Your task to perform on an android device: Go to CNN.com Image 0: 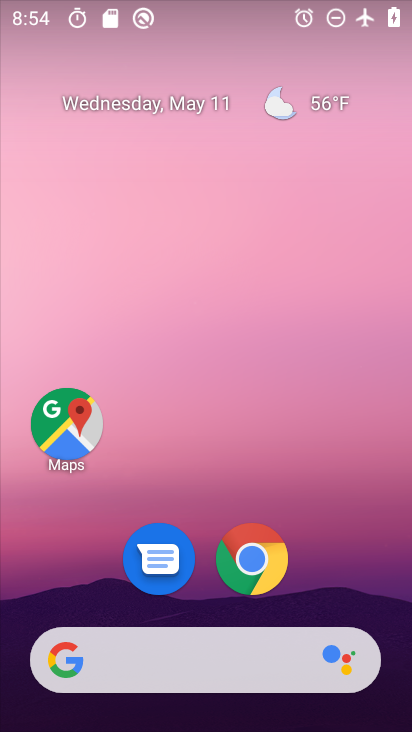
Step 0: click (253, 563)
Your task to perform on an android device: Go to CNN.com Image 1: 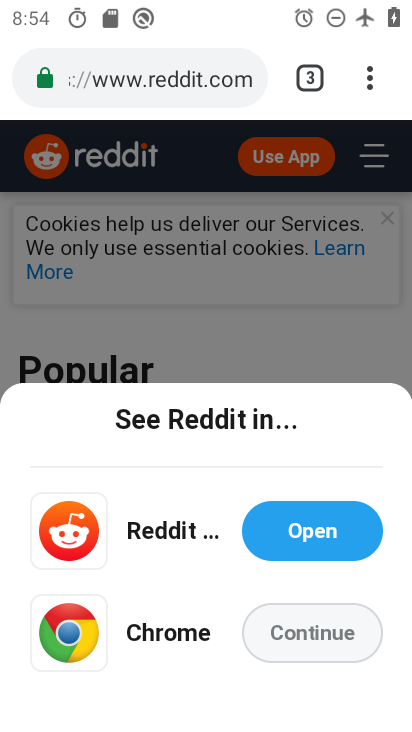
Step 1: click (312, 642)
Your task to perform on an android device: Go to CNN.com Image 2: 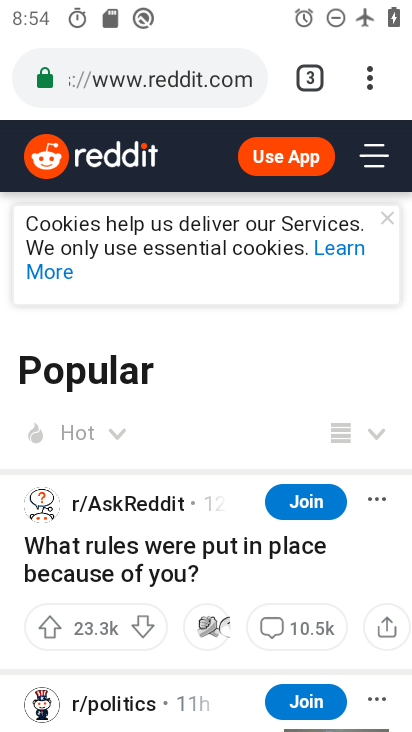
Step 2: click (303, 84)
Your task to perform on an android device: Go to CNN.com Image 3: 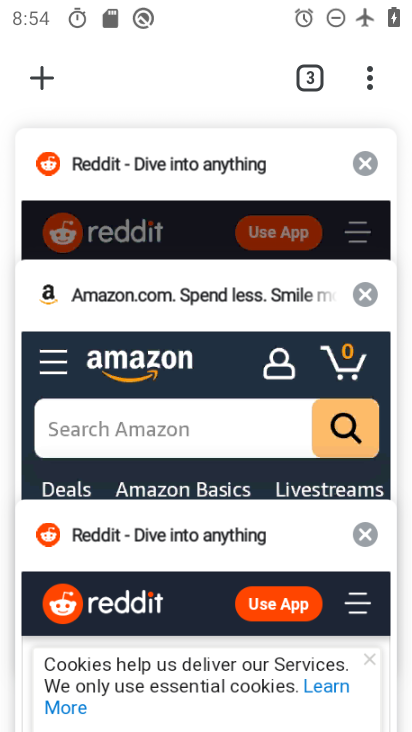
Step 3: click (40, 72)
Your task to perform on an android device: Go to CNN.com Image 4: 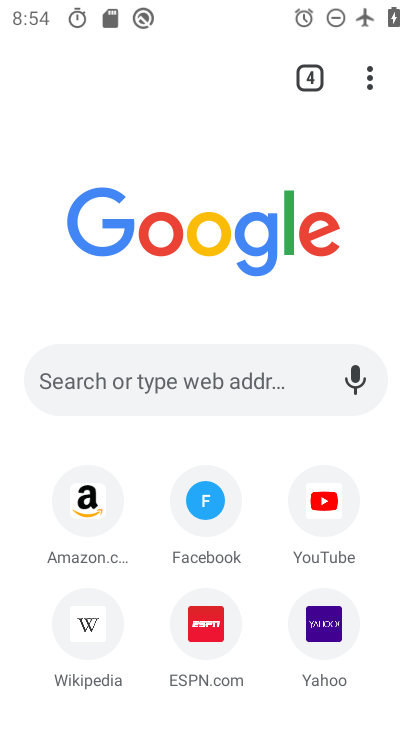
Step 4: click (217, 382)
Your task to perform on an android device: Go to CNN.com Image 5: 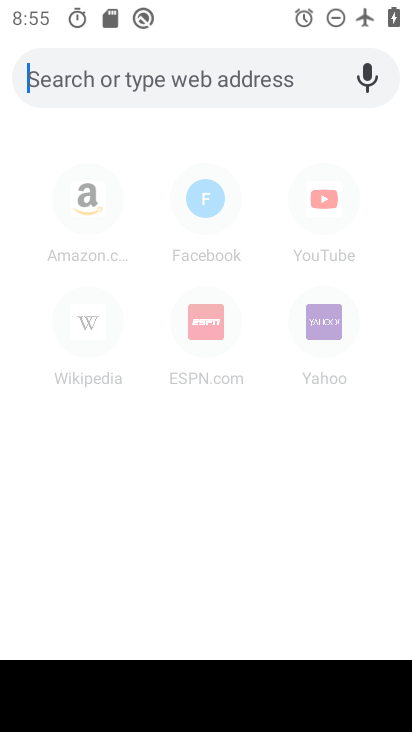
Step 5: type "CNN"
Your task to perform on an android device: Go to CNN.com Image 6: 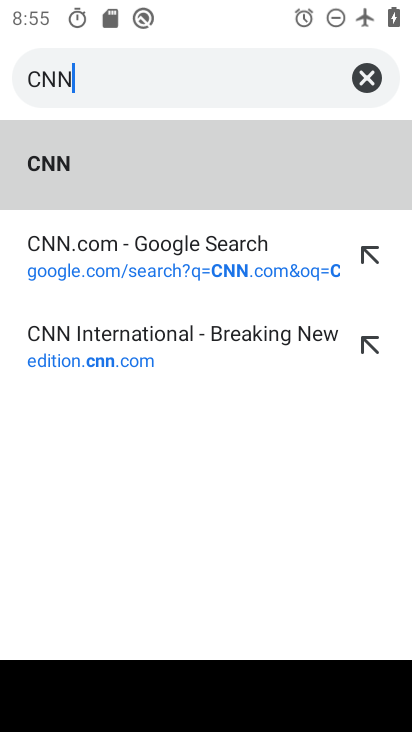
Step 6: click (171, 346)
Your task to perform on an android device: Go to CNN.com Image 7: 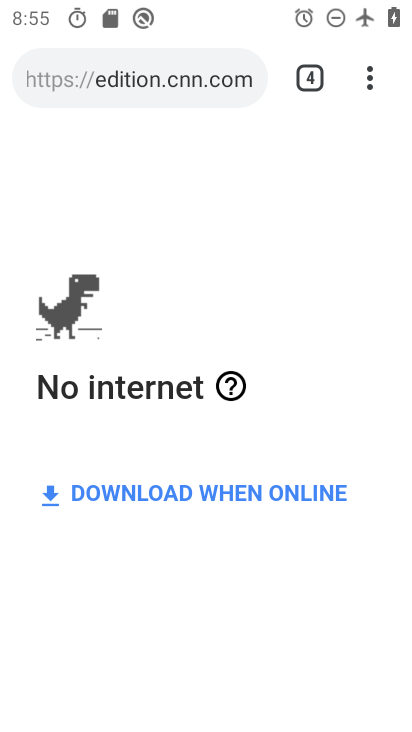
Step 7: task complete